Your task to perform on an android device: Show me my notifications Image 0: 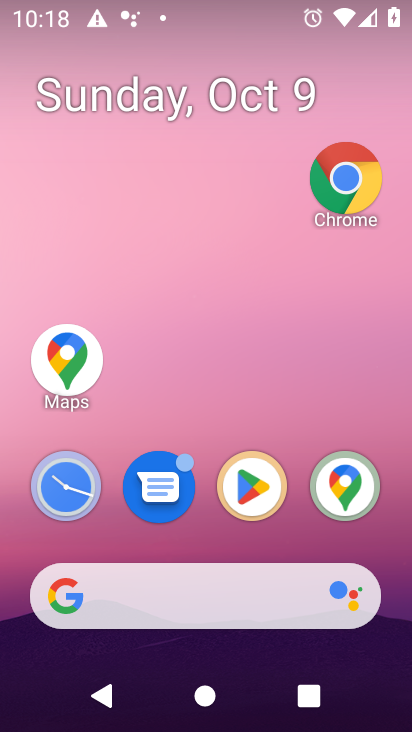
Step 0: drag from (267, 13) to (278, 420)
Your task to perform on an android device: Show me my notifications Image 1: 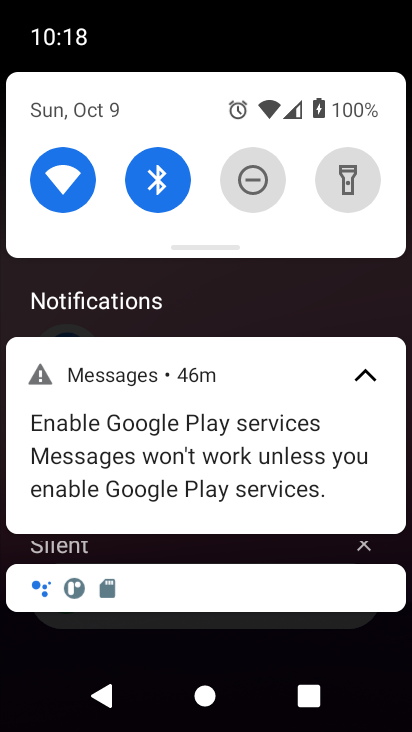
Step 1: task complete